Your task to perform on an android device: Open the Play Movies app and select the watchlist tab. Image 0: 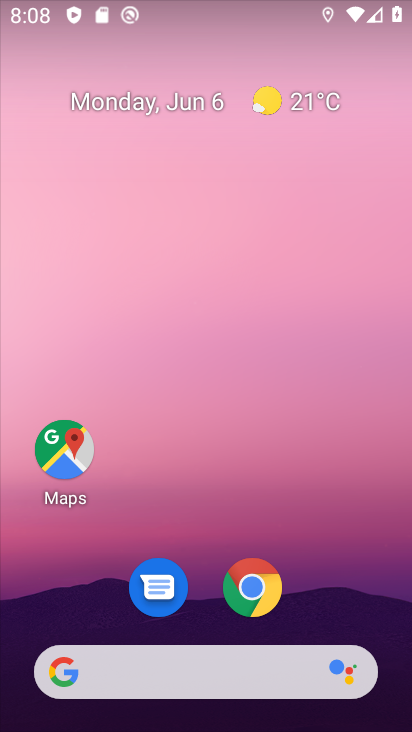
Step 0: drag from (289, 469) to (260, 132)
Your task to perform on an android device: Open the Play Movies app and select the watchlist tab. Image 1: 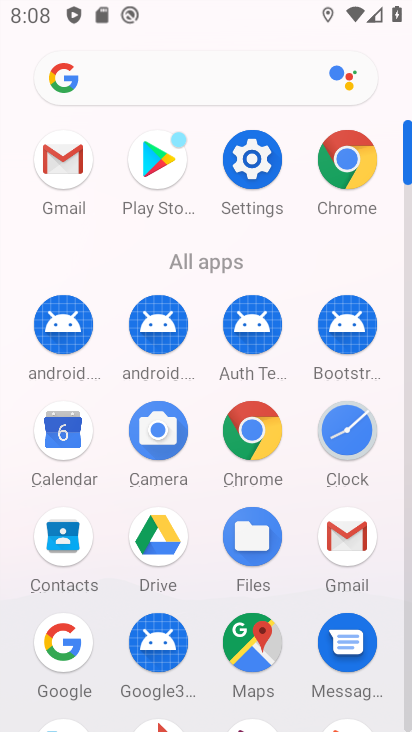
Step 1: drag from (307, 593) to (318, 265)
Your task to perform on an android device: Open the Play Movies app and select the watchlist tab. Image 2: 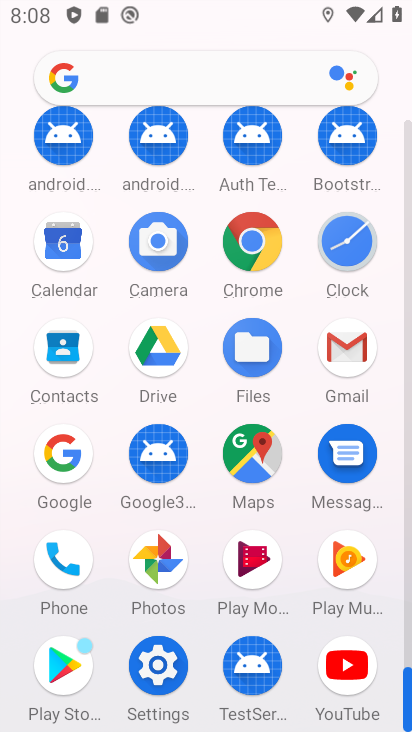
Step 2: click (259, 559)
Your task to perform on an android device: Open the Play Movies app and select the watchlist tab. Image 3: 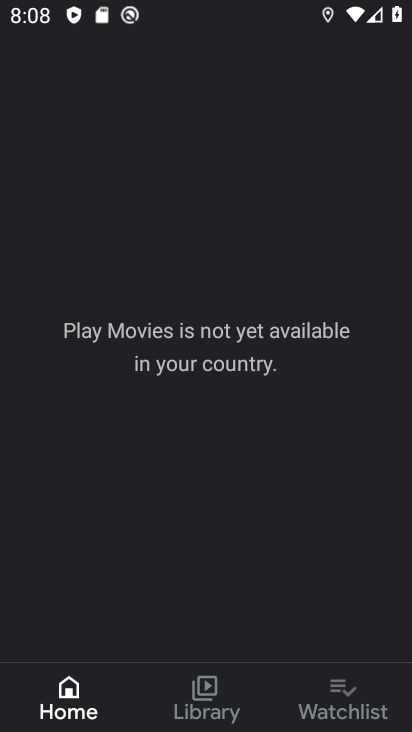
Step 3: click (322, 713)
Your task to perform on an android device: Open the Play Movies app and select the watchlist tab. Image 4: 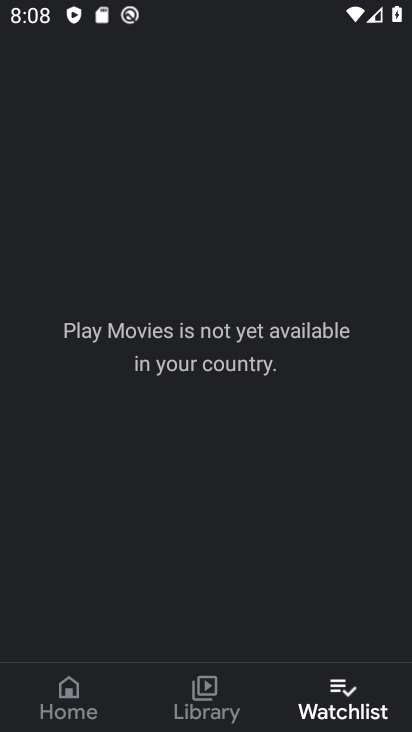
Step 4: task complete